Your task to perform on an android device: Open the Play Movies app and select the watchlist tab. Image 0: 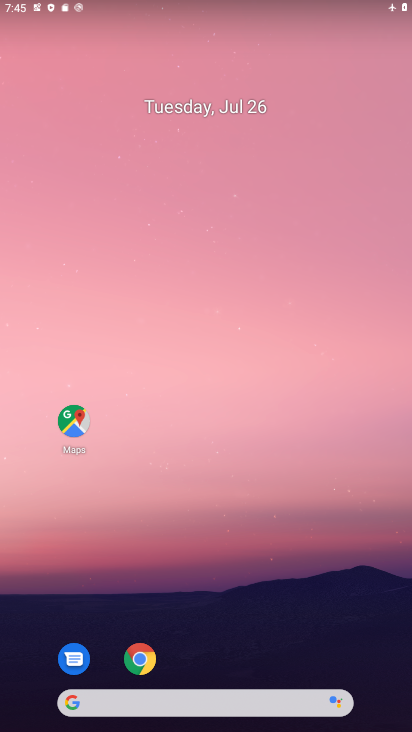
Step 0: drag from (215, 656) to (150, 209)
Your task to perform on an android device: Open the Play Movies app and select the watchlist tab. Image 1: 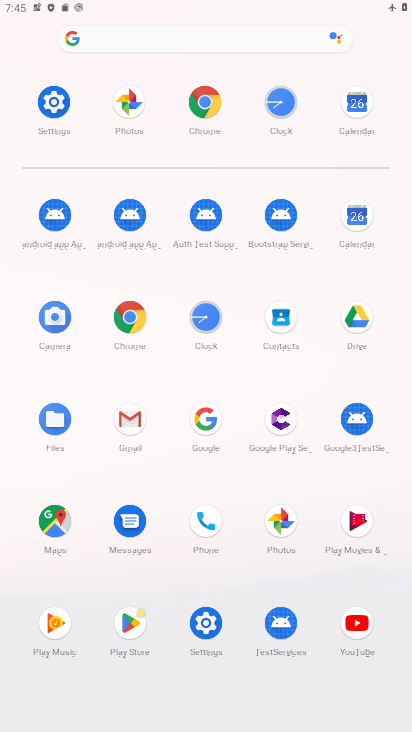
Step 1: click (357, 510)
Your task to perform on an android device: Open the Play Movies app and select the watchlist tab. Image 2: 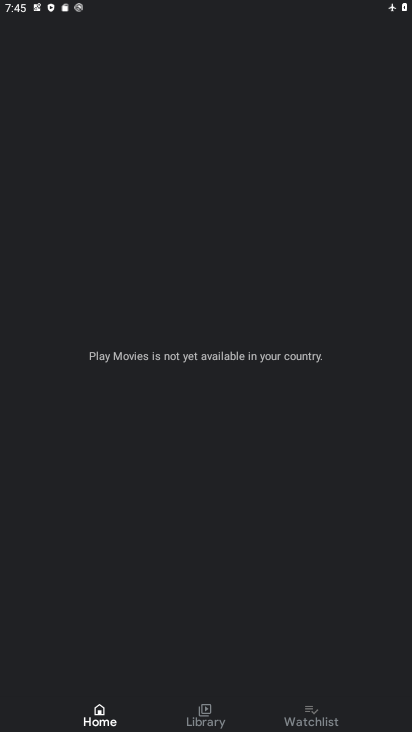
Step 2: click (313, 707)
Your task to perform on an android device: Open the Play Movies app and select the watchlist tab. Image 3: 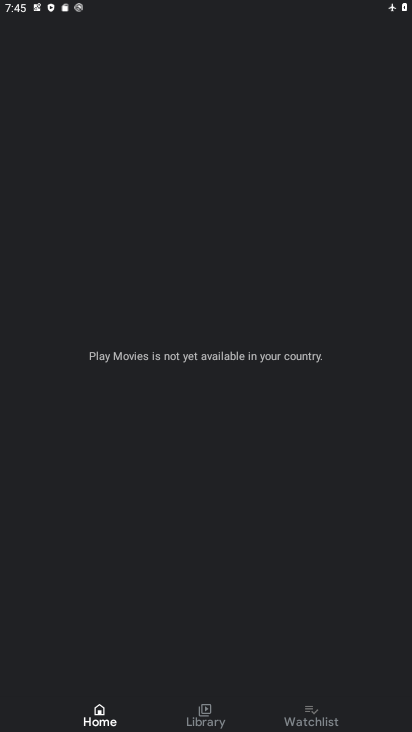
Step 3: click (313, 707)
Your task to perform on an android device: Open the Play Movies app and select the watchlist tab. Image 4: 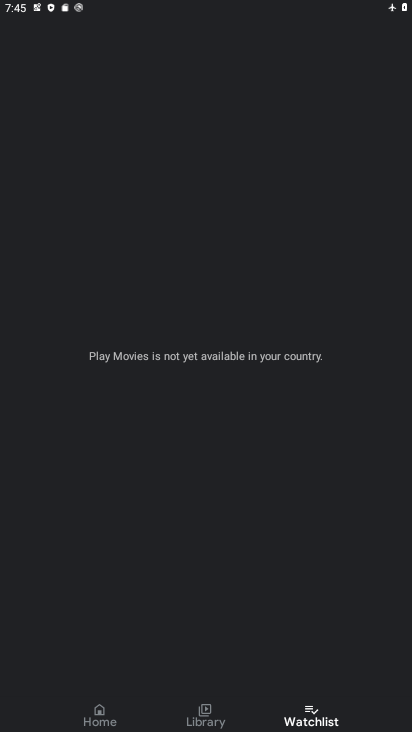
Step 4: task complete